Your task to perform on an android device: change your default location settings in chrome Image 0: 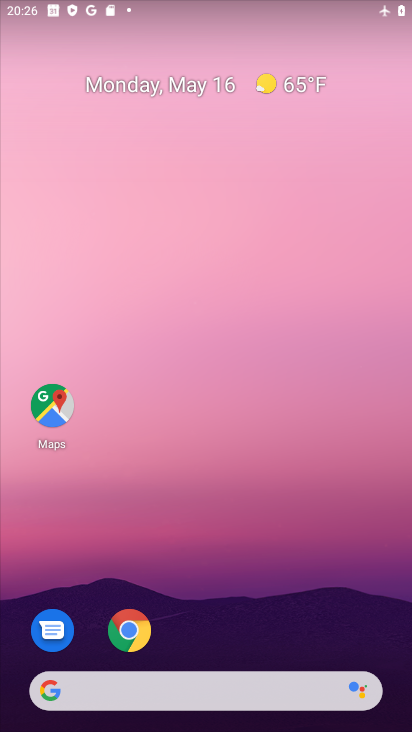
Step 0: click (121, 612)
Your task to perform on an android device: change your default location settings in chrome Image 1: 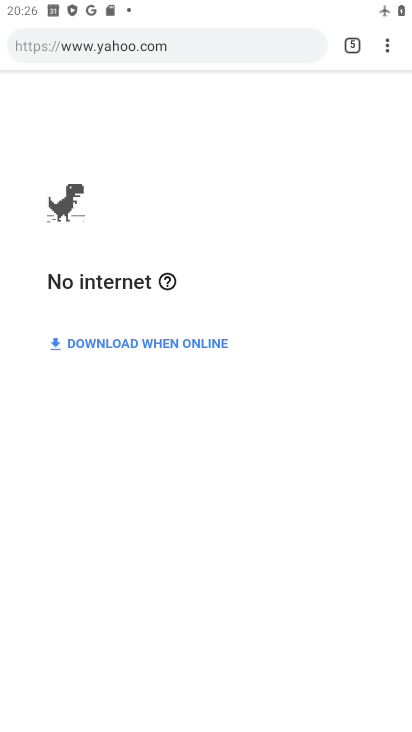
Step 1: click (395, 47)
Your task to perform on an android device: change your default location settings in chrome Image 2: 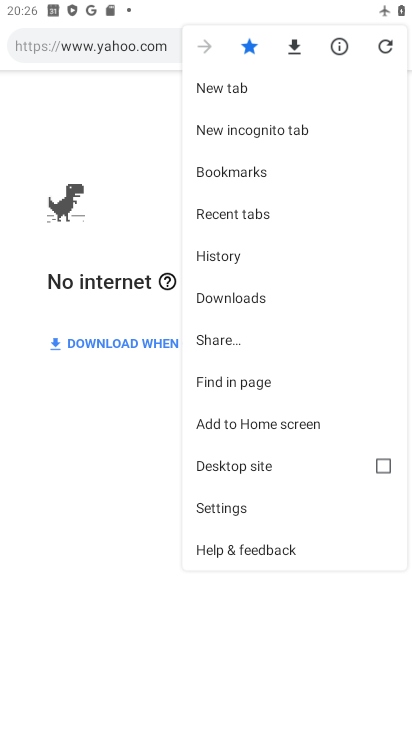
Step 2: click (234, 499)
Your task to perform on an android device: change your default location settings in chrome Image 3: 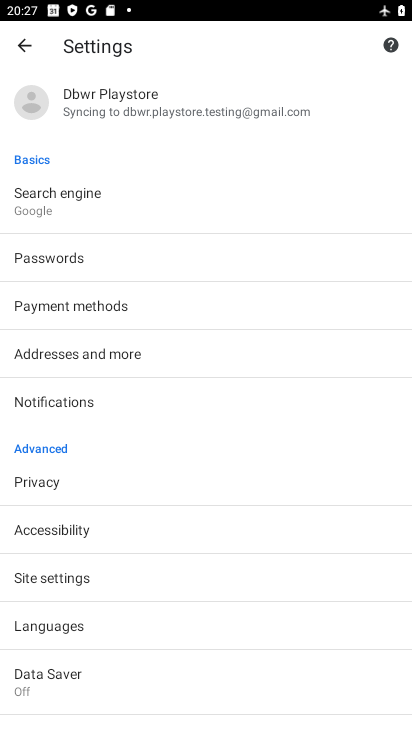
Step 3: drag from (179, 646) to (230, 478)
Your task to perform on an android device: change your default location settings in chrome Image 4: 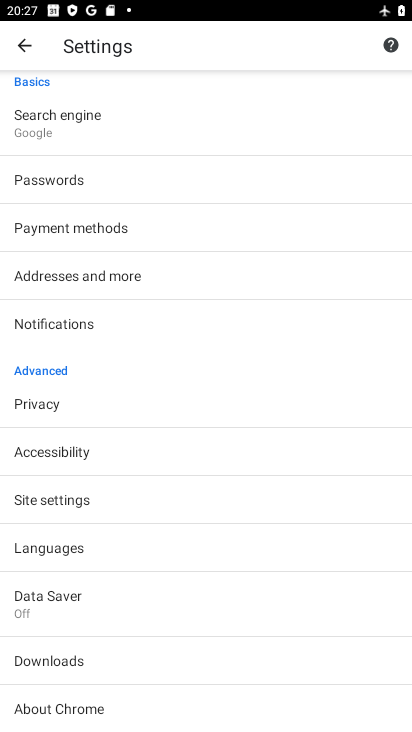
Step 4: click (83, 500)
Your task to perform on an android device: change your default location settings in chrome Image 5: 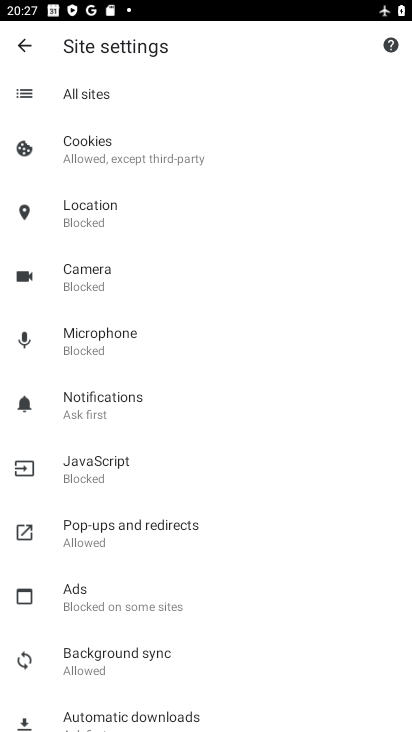
Step 5: click (185, 217)
Your task to perform on an android device: change your default location settings in chrome Image 6: 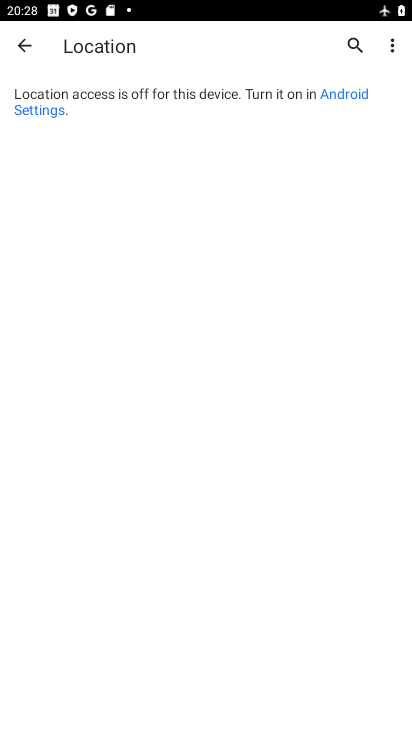
Step 6: click (391, 46)
Your task to perform on an android device: change your default location settings in chrome Image 7: 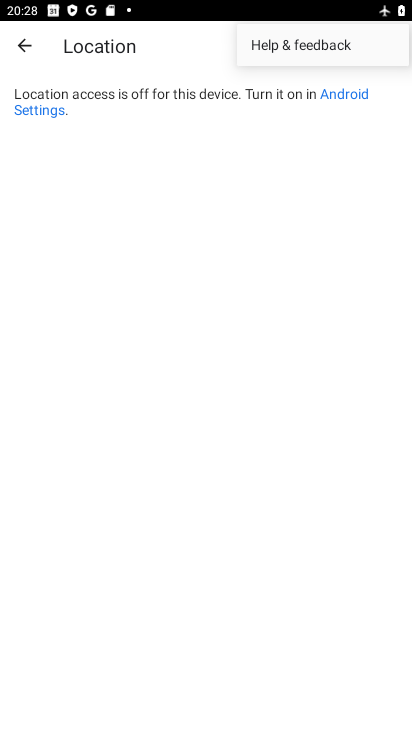
Step 7: click (192, 286)
Your task to perform on an android device: change your default location settings in chrome Image 8: 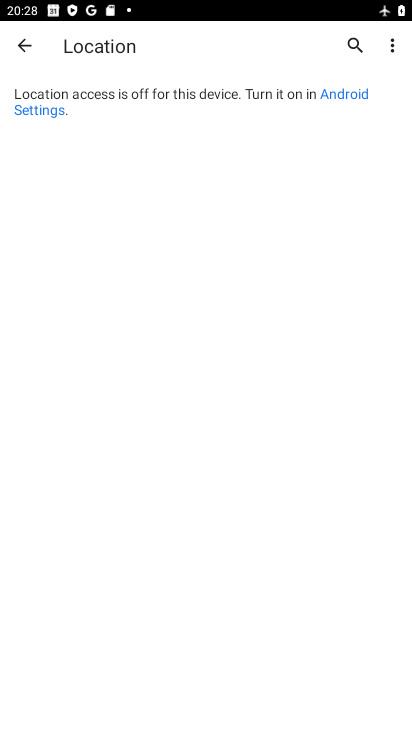
Step 8: task complete